Your task to perform on an android device: check android version Image 0: 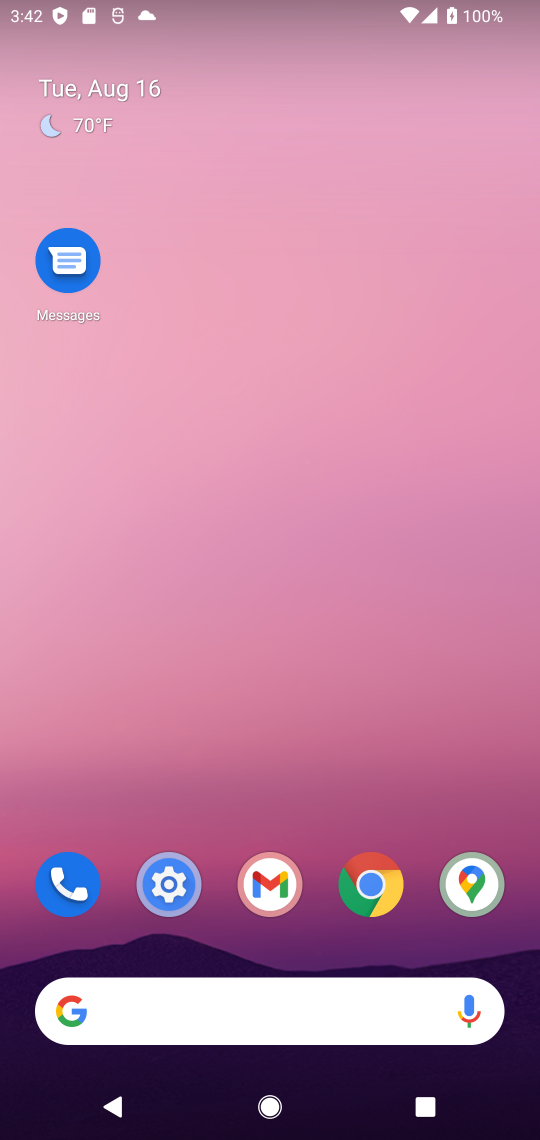
Step 0: click (147, 882)
Your task to perform on an android device: check android version Image 1: 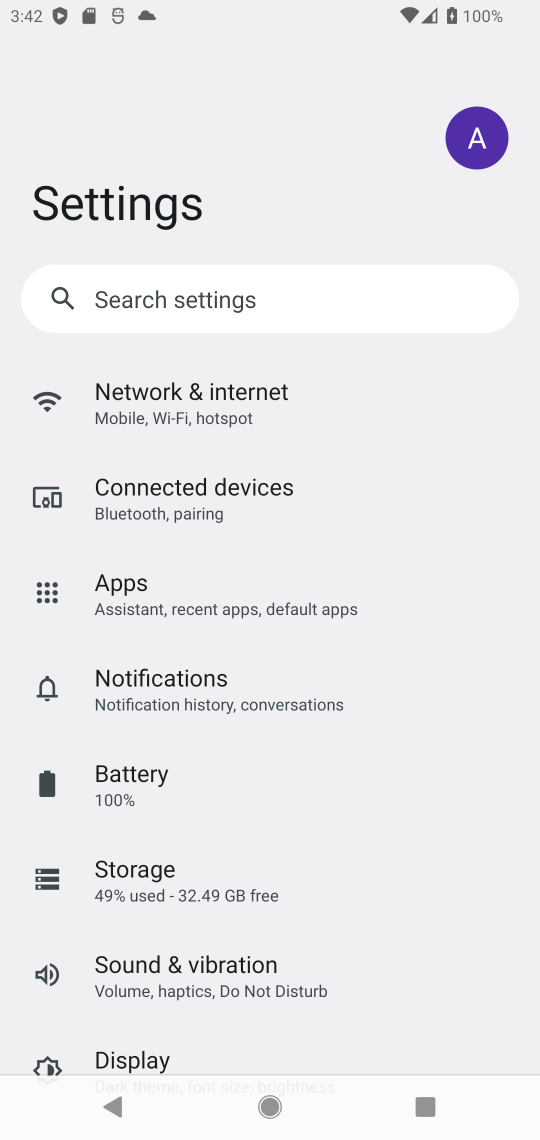
Step 1: drag from (401, 1042) to (390, 827)
Your task to perform on an android device: check android version Image 2: 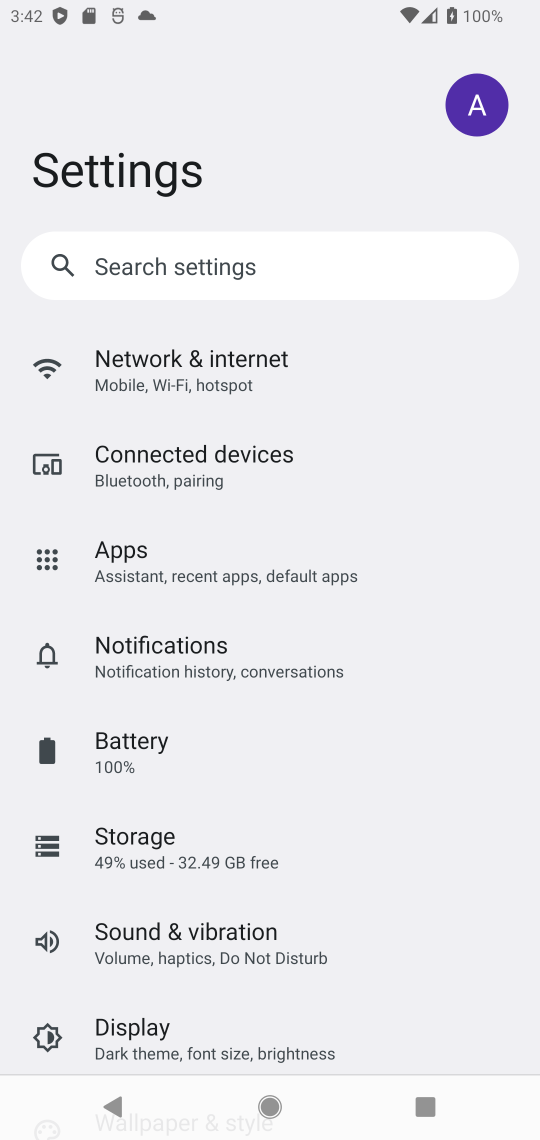
Step 2: drag from (395, 896) to (436, 208)
Your task to perform on an android device: check android version Image 3: 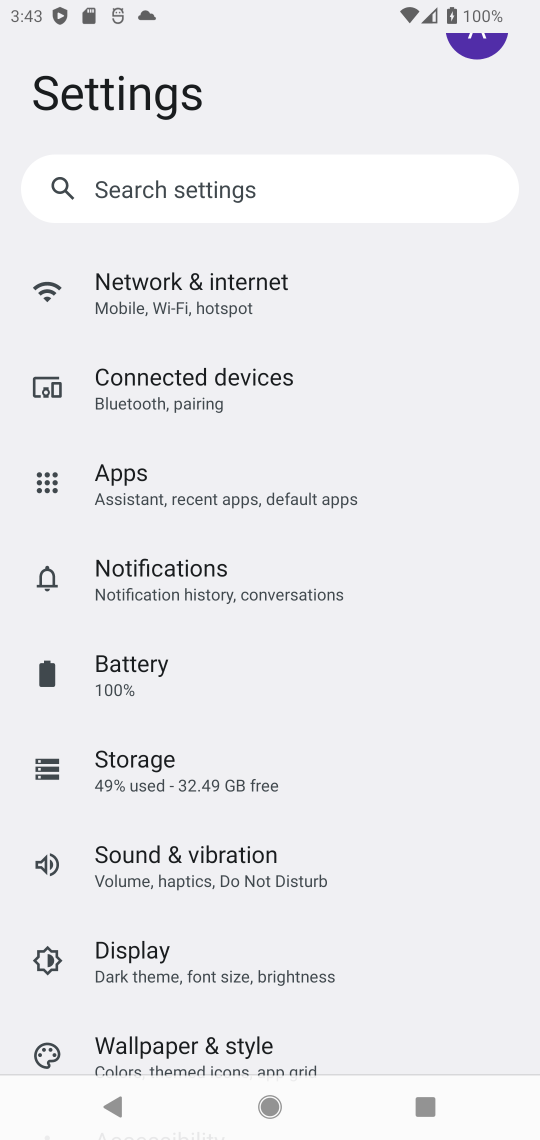
Step 3: drag from (427, 956) to (455, 428)
Your task to perform on an android device: check android version Image 4: 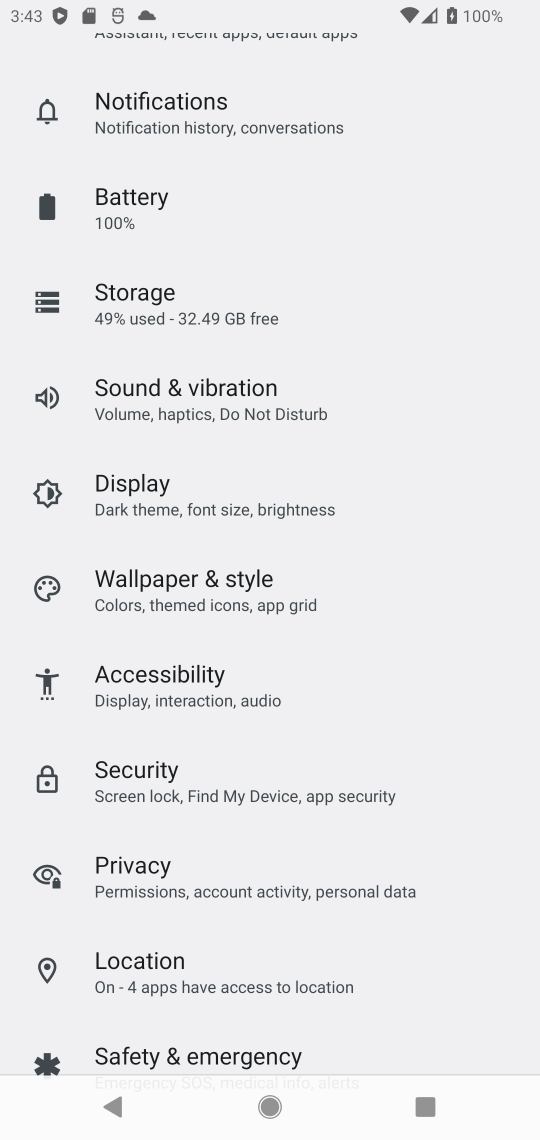
Step 4: drag from (479, 1027) to (492, 430)
Your task to perform on an android device: check android version Image 5: 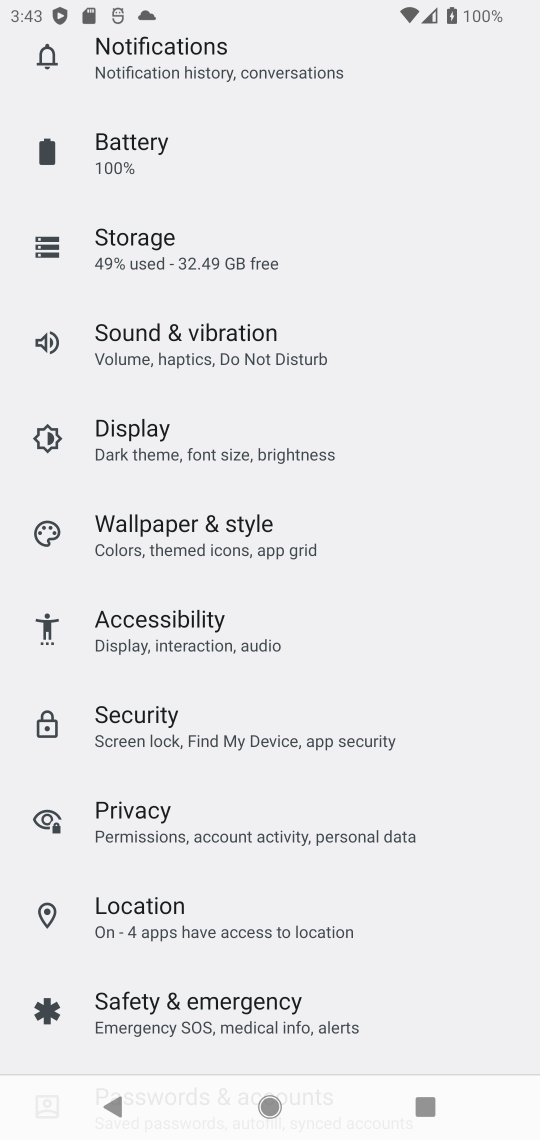
Step 5: drag from (479, 1008) to (511, 483)
Your task to perform on an android device: check android version Image 6: 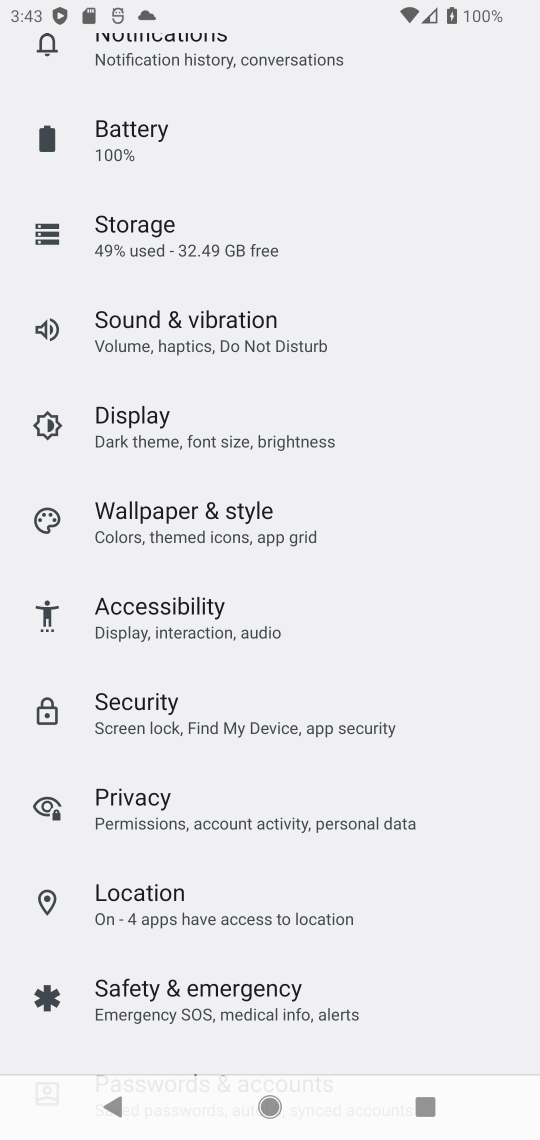
Step 6: drag from (455, 1014) to (489, 838)
Your task to perform on an android device: check android version Image 7: 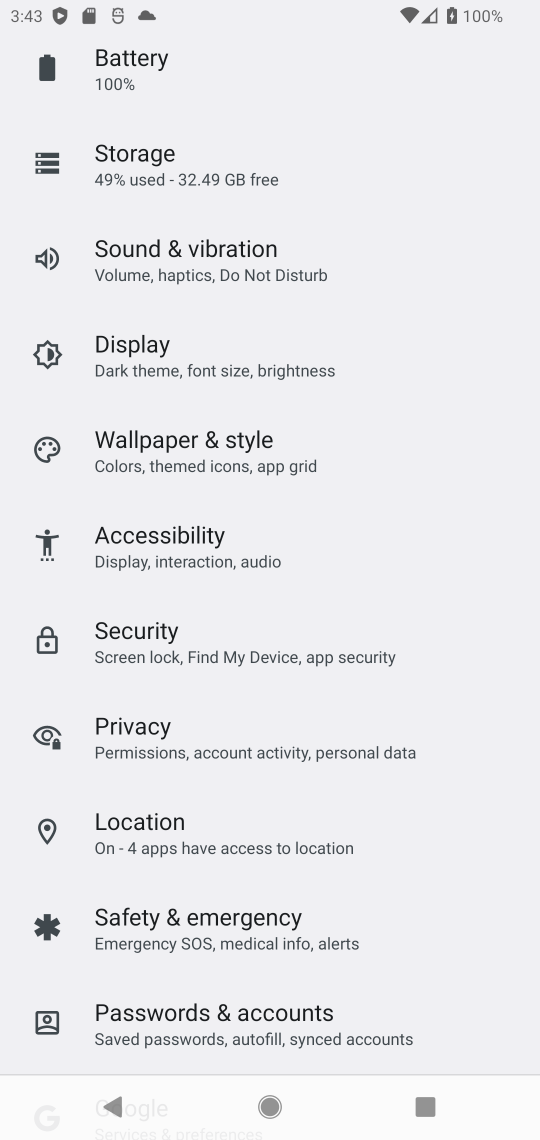
Step 7: drag from (510, 1005) to (480, 423)
Your task to perform on an android device: check android version Image 8: 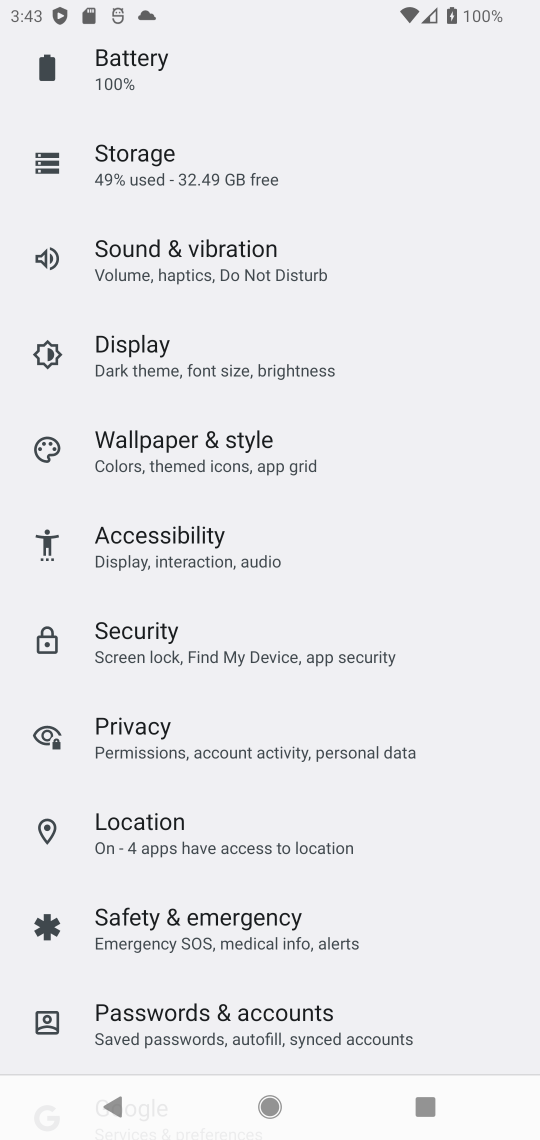
Step 8: drag from (496, 983) to (443, 571)
Your task to perform on an android device: check android version Image 9: 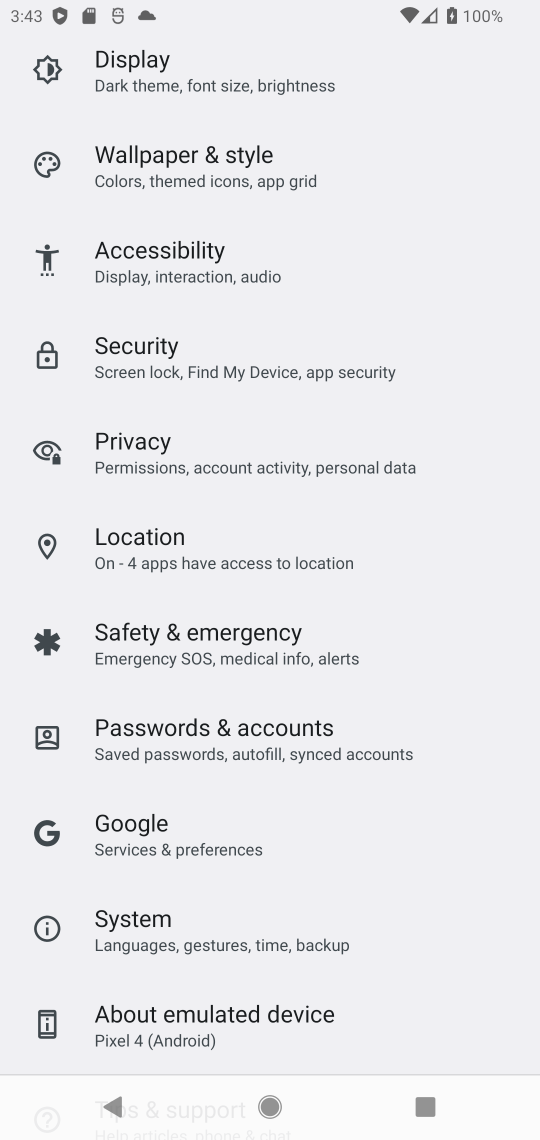
Step 9: click (224, 1013)
Your task to perform on an android device: check android version Image 10: 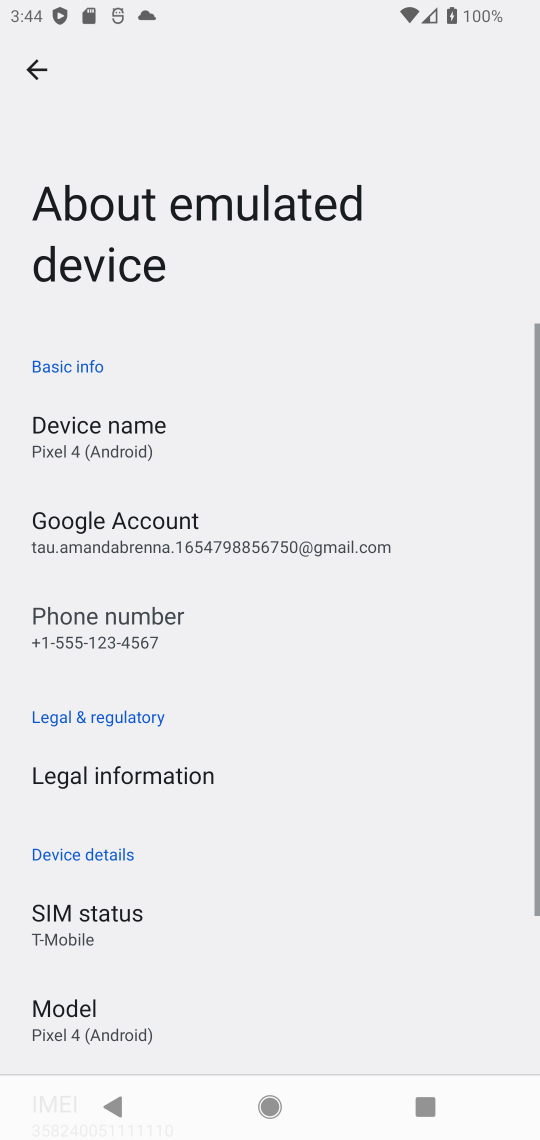
Step 10: drag from (316, 972) to (347, 393)
Your task to perform on an android device: check android version Image 11: 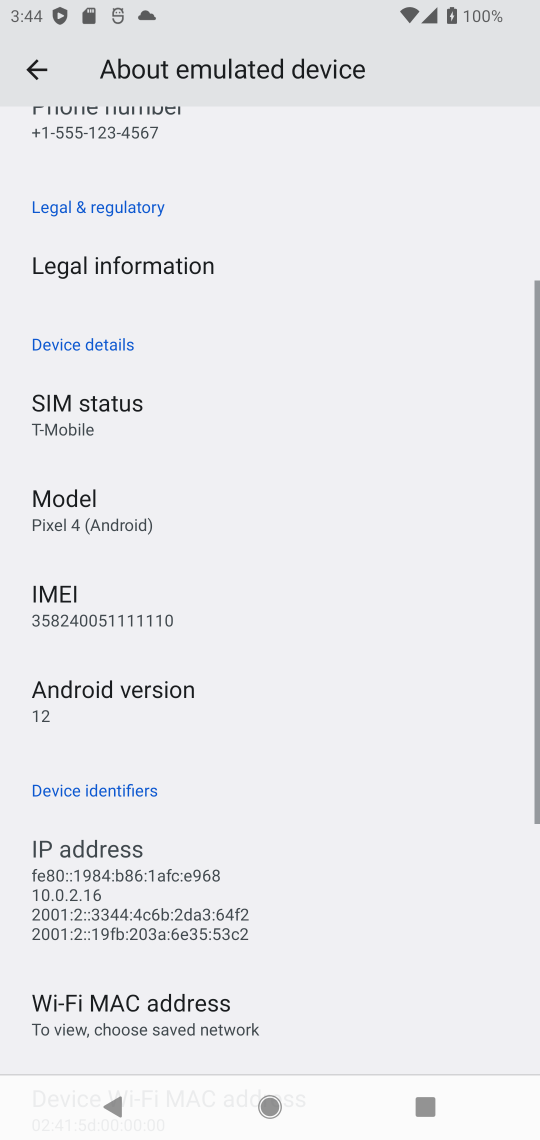
Step 11: click (143, 702)
Your task to perform on an android device: check android version Image 12: 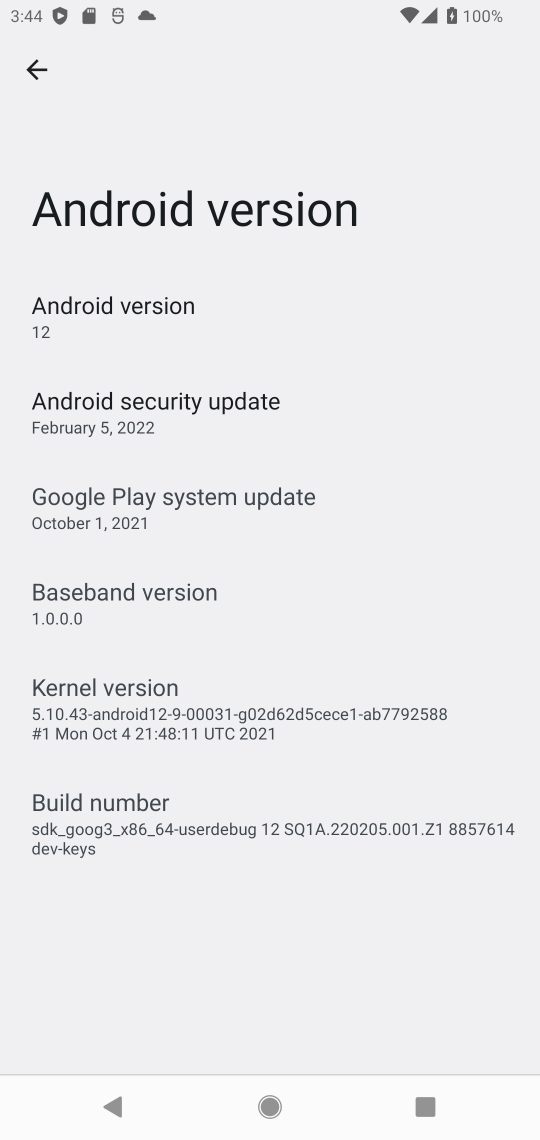
Step 12: task complete